Your task to perform on an android device: set default search engine in the chrome app Image 0: 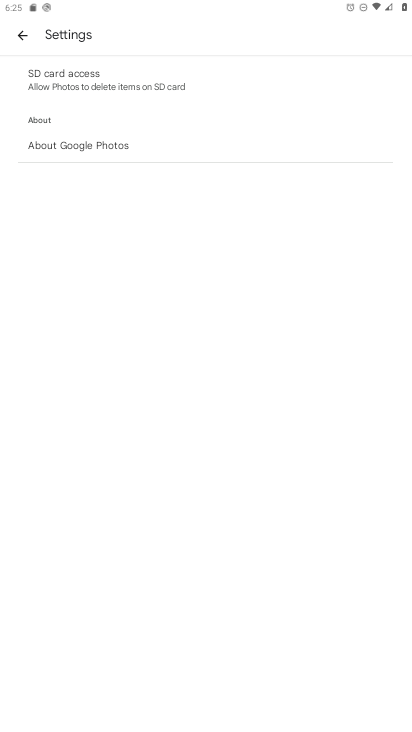
Step 0: press home button
Your task to perform on an android device: set default search engine in the chrome app Image 1: 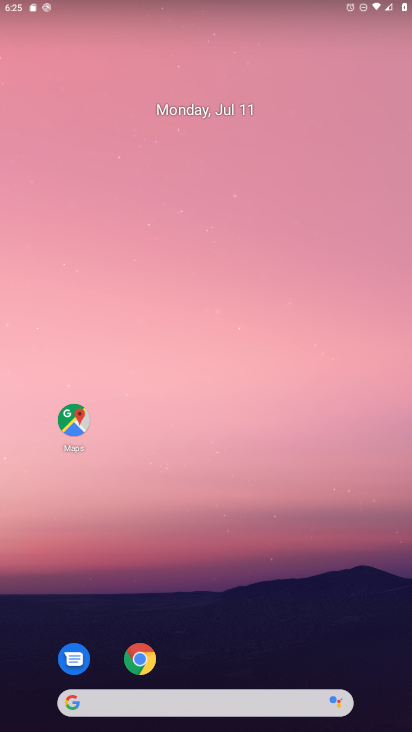
Step 1: click (140, 662)
Your task to perform on an android device: set default search engine in the chrome app Image 2: 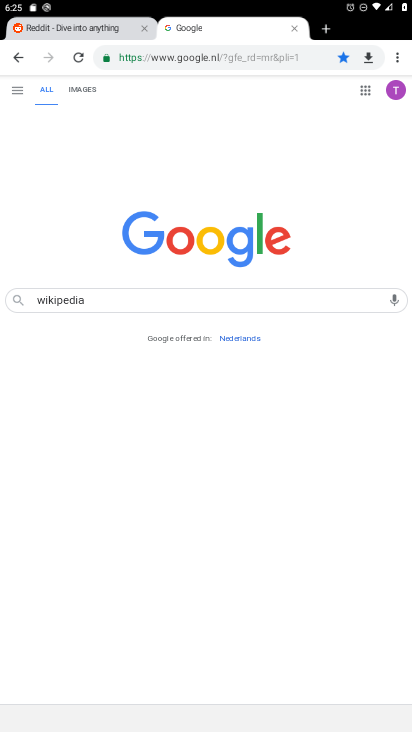
Step 2: click (397, 63)
Your task to perform on an android device: set default search engine in the chrome app Image 3: 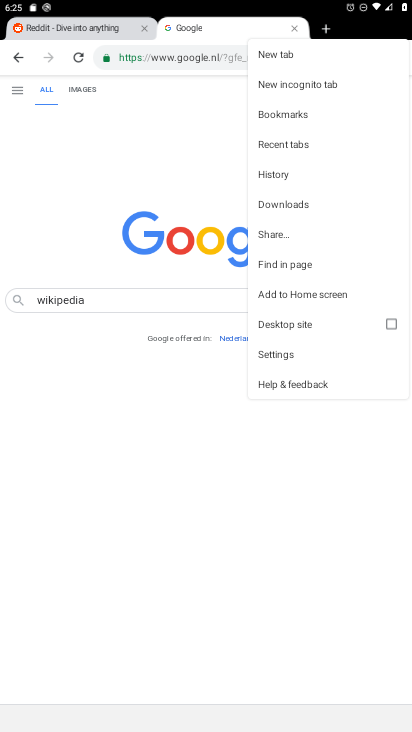
Step 3: click (281, 348)
Your task to perform on an android device: set default search engine in the chrome app Image 4: 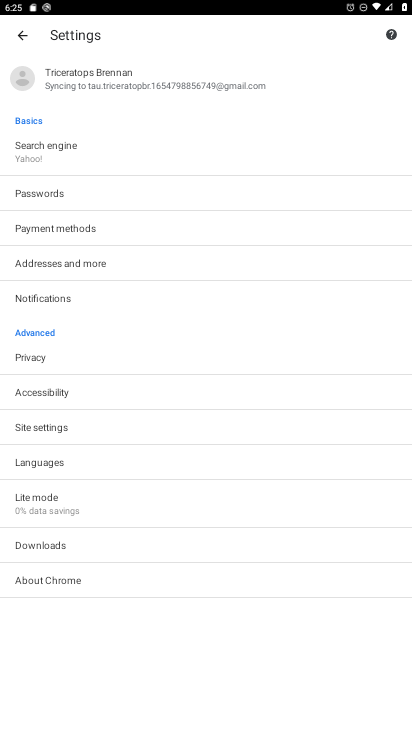
Step 4: click (38, 149)
Your task to perform on an android device: set default search engine in the chrome app Image 5: 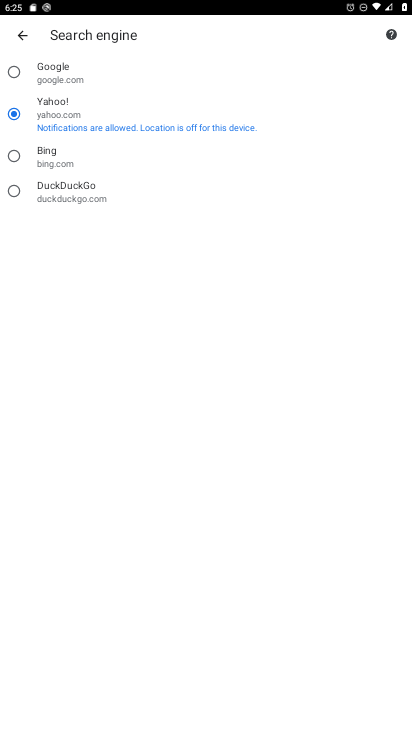
Step 5: click (14, 74)
Your task to perform on an android device: set default search engine in the chrome app Image 6: 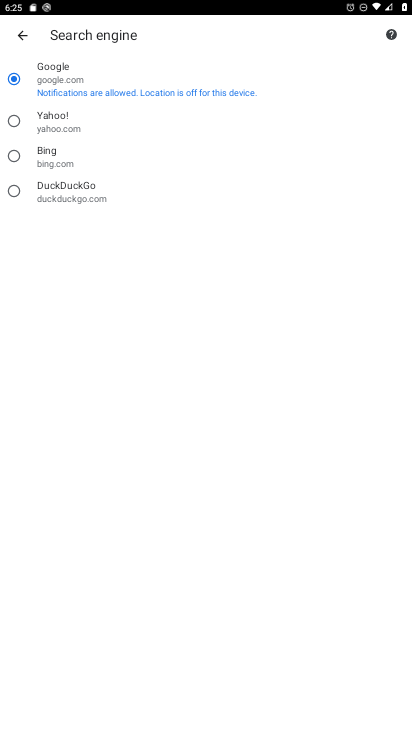
Step 6: task complete